Your task to perform on an android device: empty trash in the gmail app Image 0: 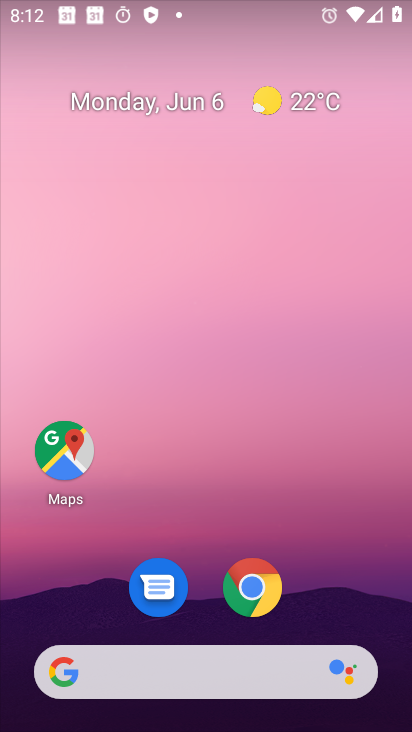
Step 0: drag from (211, 542) to (182, 315)
Your task to perform on an android device: empty trash in the gmail app Image 1: 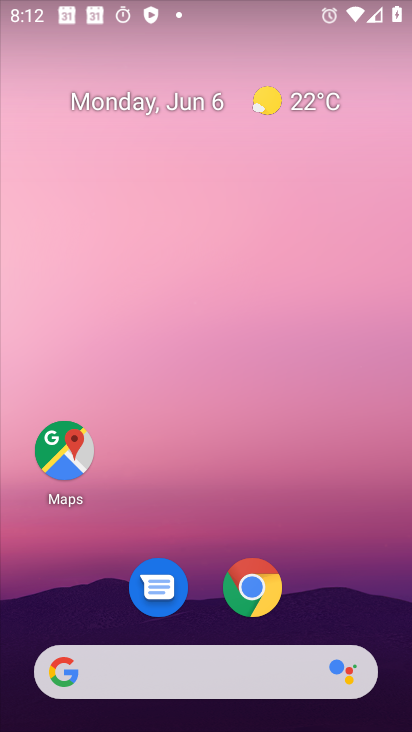
Step 1: drag from (137, 613) to (134, 283)
Your task to perform on an android device: empty trash in the gmail app Image 2: 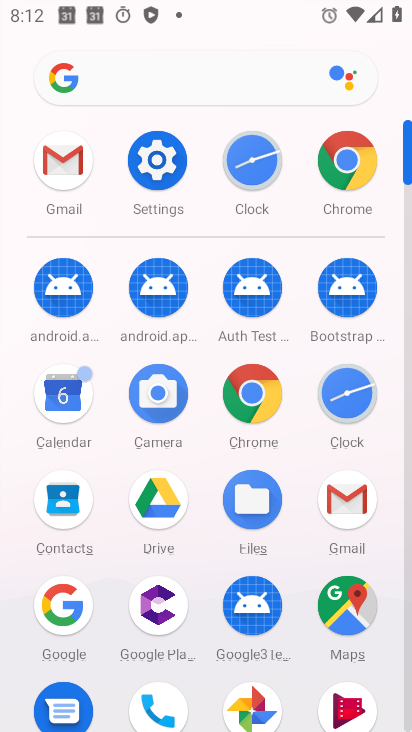
Step 2: click (69, 166)
Your task to perform on an android device: empty trash in the gmail app Image 3: 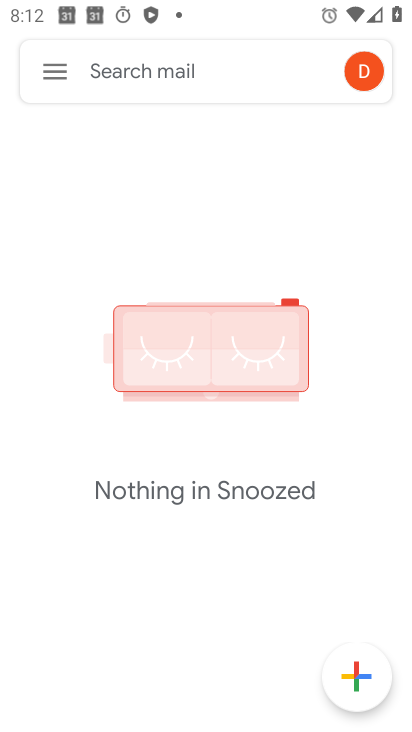
Step 3: click (53, 75)
Your task to perform on an android device: empty trash in the gmail app Image 4: 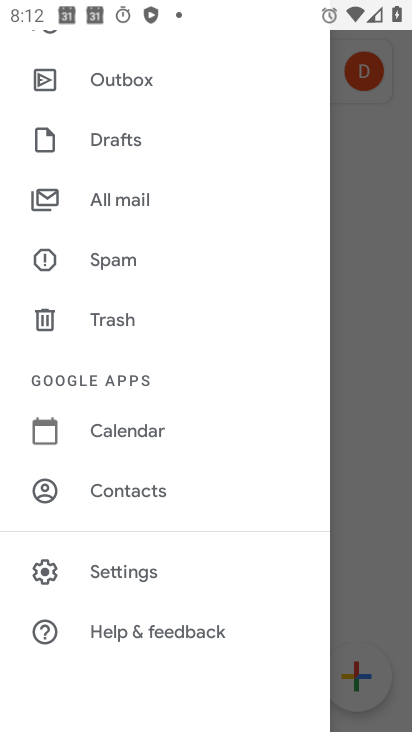
Step 4: click (95, 304)
Your task to perform on an android device: empty trash in the gmail app Image 5: 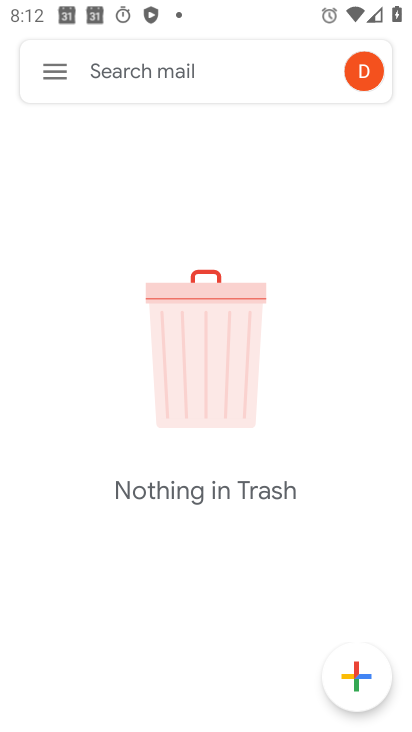
Step 5: task complete